Your task to perform on an android device: Open Google Image 0: 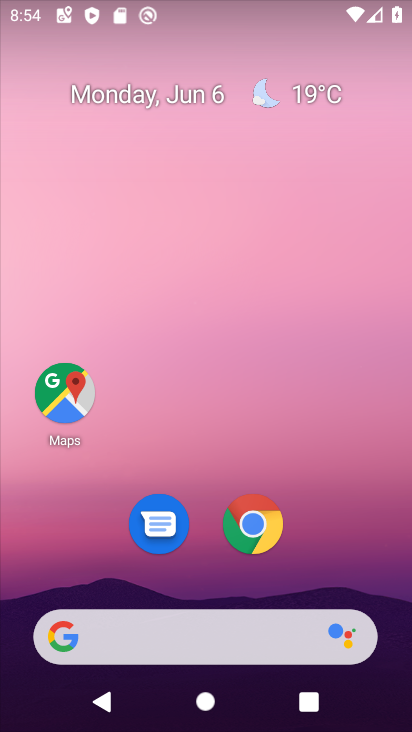
Step 0: click (212, 641)
Your task to perform on an android device: Open Google Image 1: 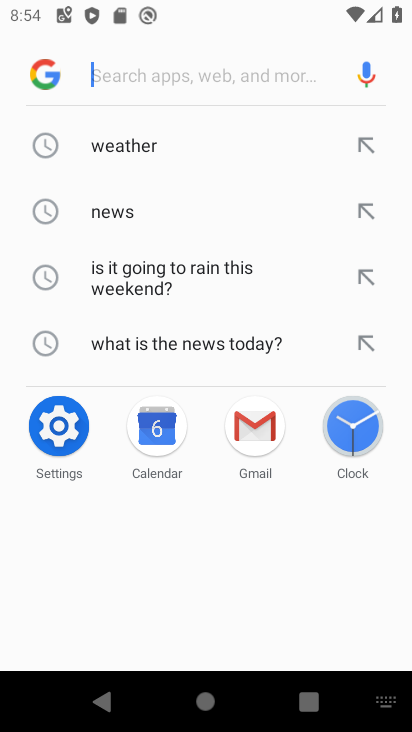
Step 1: click (36, 68)
Your task to perform on an android device: Open Google Image 2: 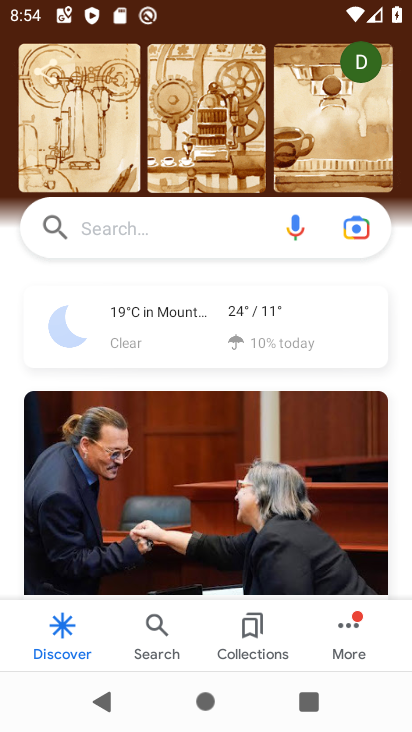
Step 2: task complete